Your task to perform on an android device: Go to Reddit.com Image 0: 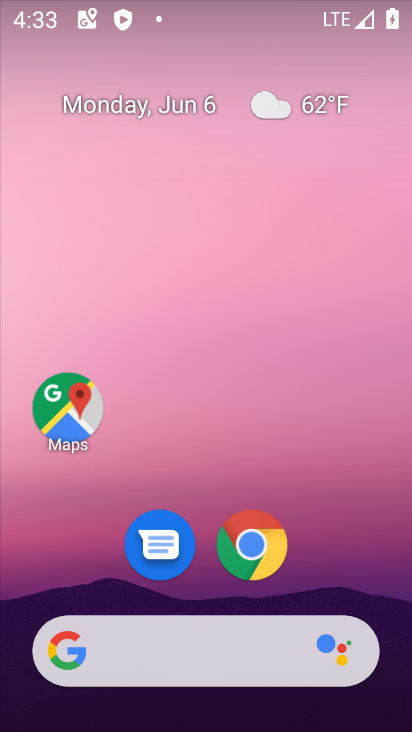
Step 0: click (261, 549)
Your task to perform on an android device: Go to Reddit.com Image 1: 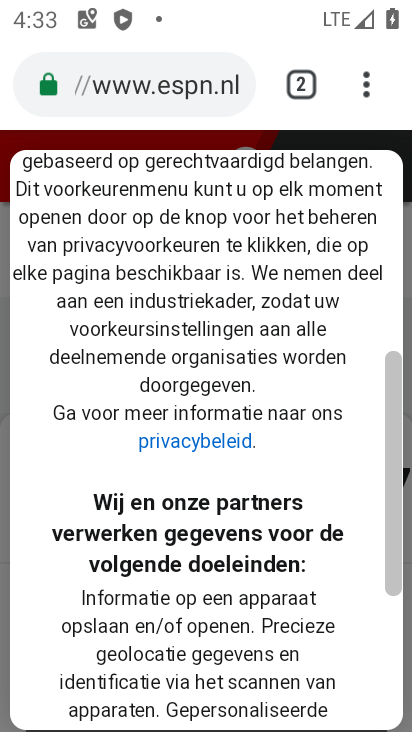
Step 1: click (364, 91)
Your task to perform on an android device: Go to Reddit.com Image 2: 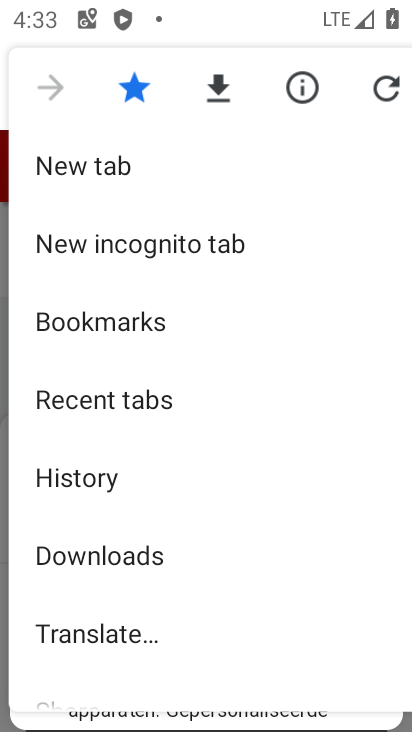
Step 2: click (82, 170)
Your task to perform on an android device: Go to Reddit.com Image 3: 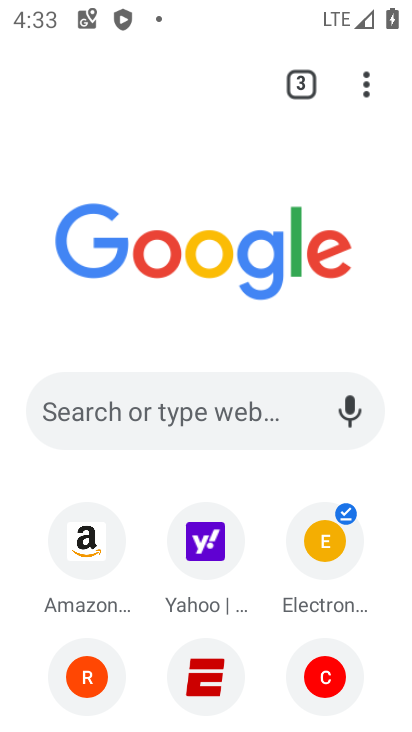
Step 3: click (84, 671)
Your task to perform on an android device: Go to Reddit.com Image 4: 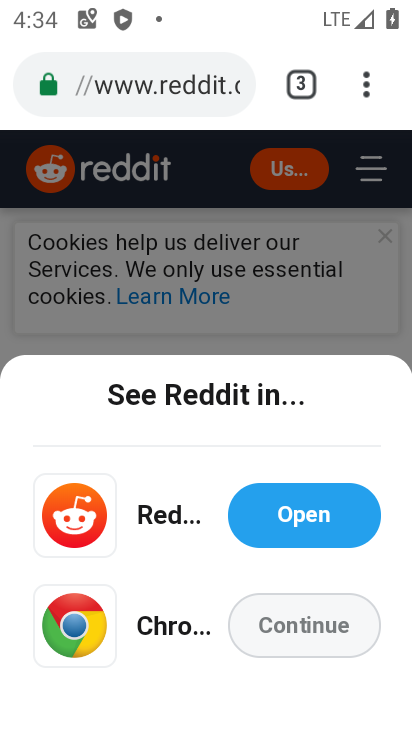
Step 4: task complete